Your task to perform on an android device: uninstall "Grab" Image 0: 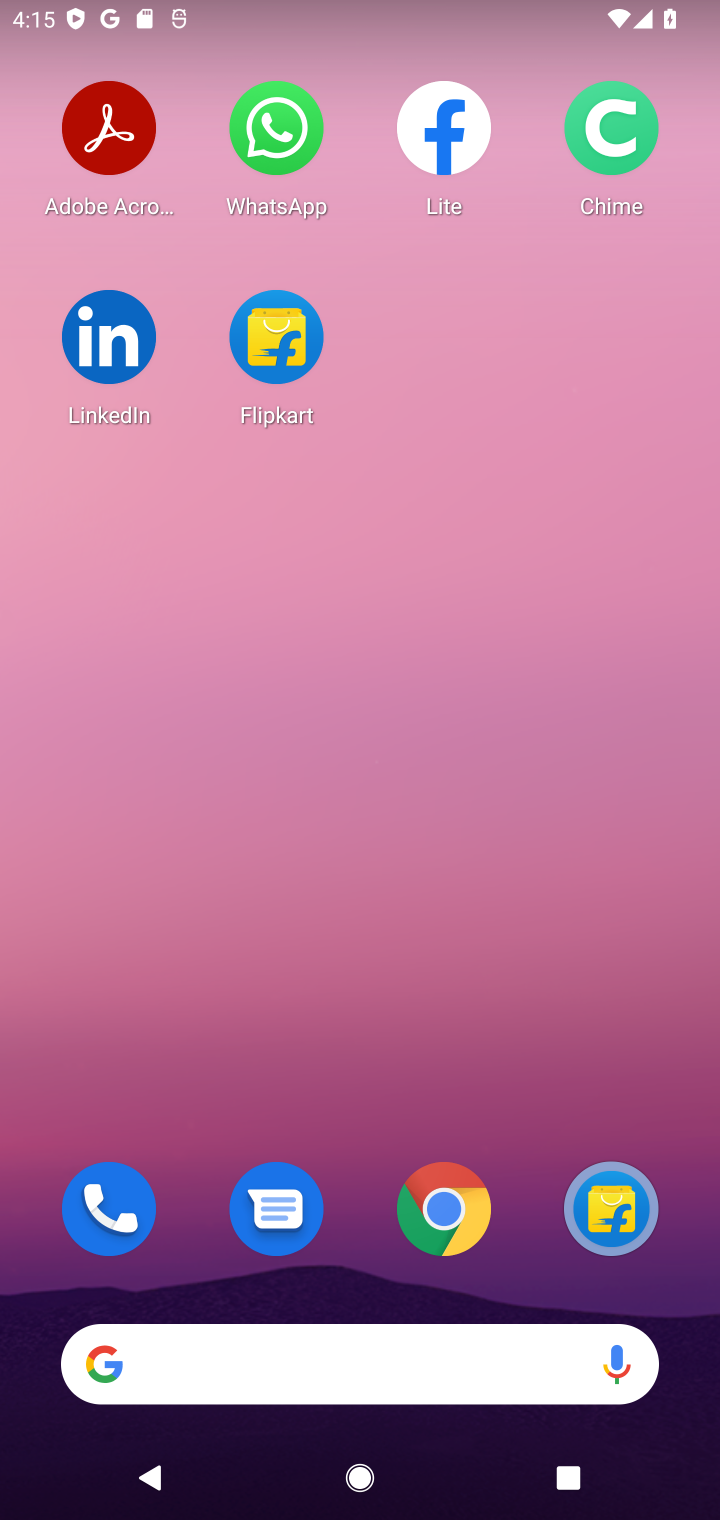
Step 0: drag from (345, 1305) to (308, 180)
Your task to perform on an android device: uninstall "Grab" Image 1: 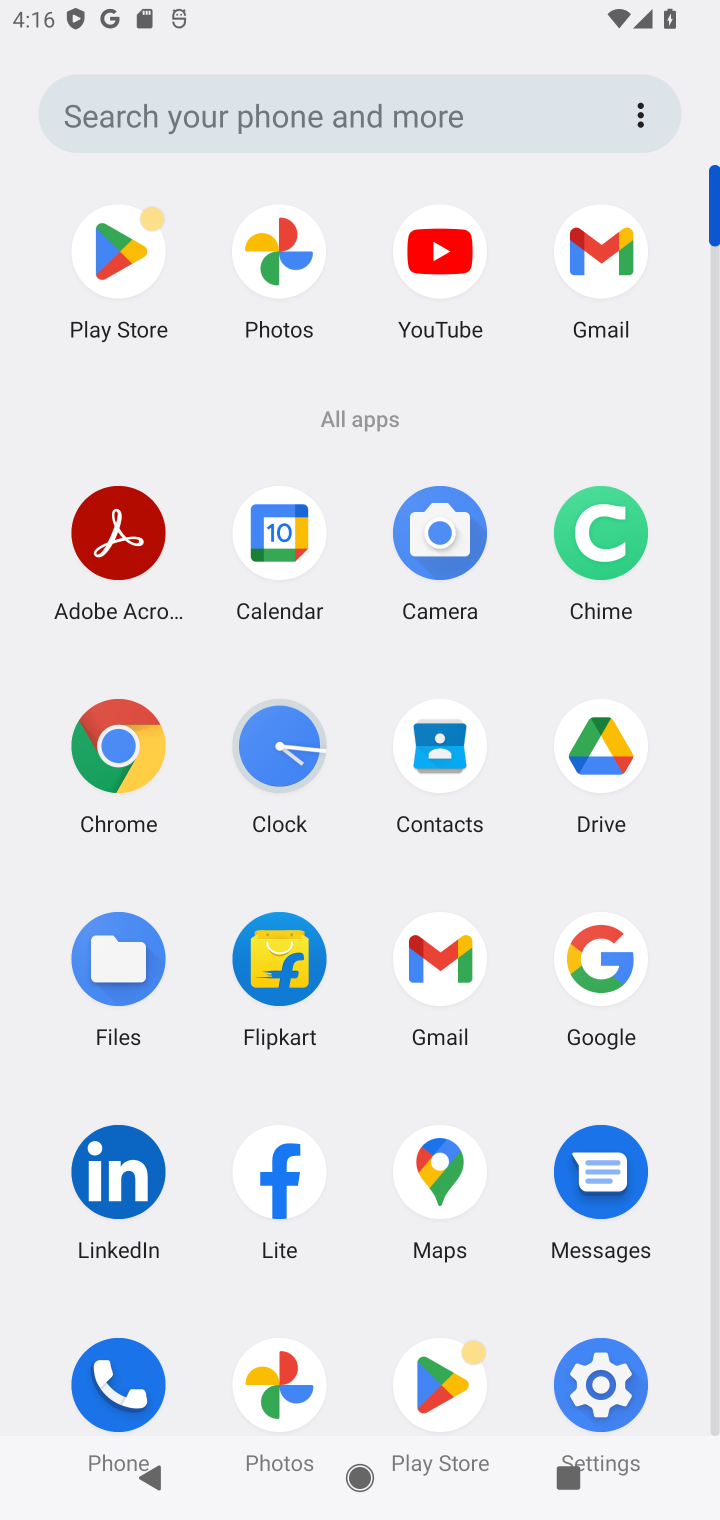
Step 1: click (106, 284)
Your task to perform on an android device: uninstall "Grab" Image 2: 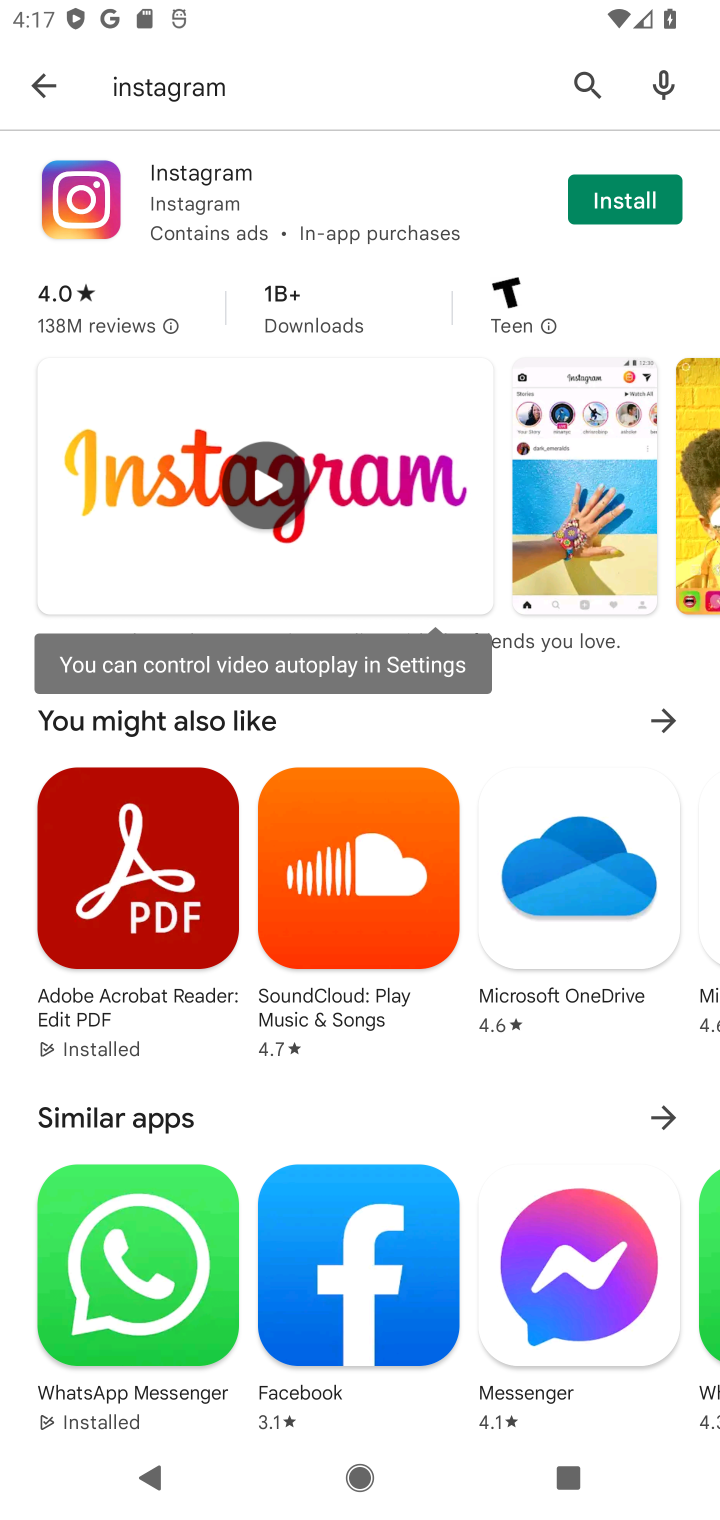
Step 2: click (568, 92)
Your task to perform on an android device: uninstall "Grab" Image 3: 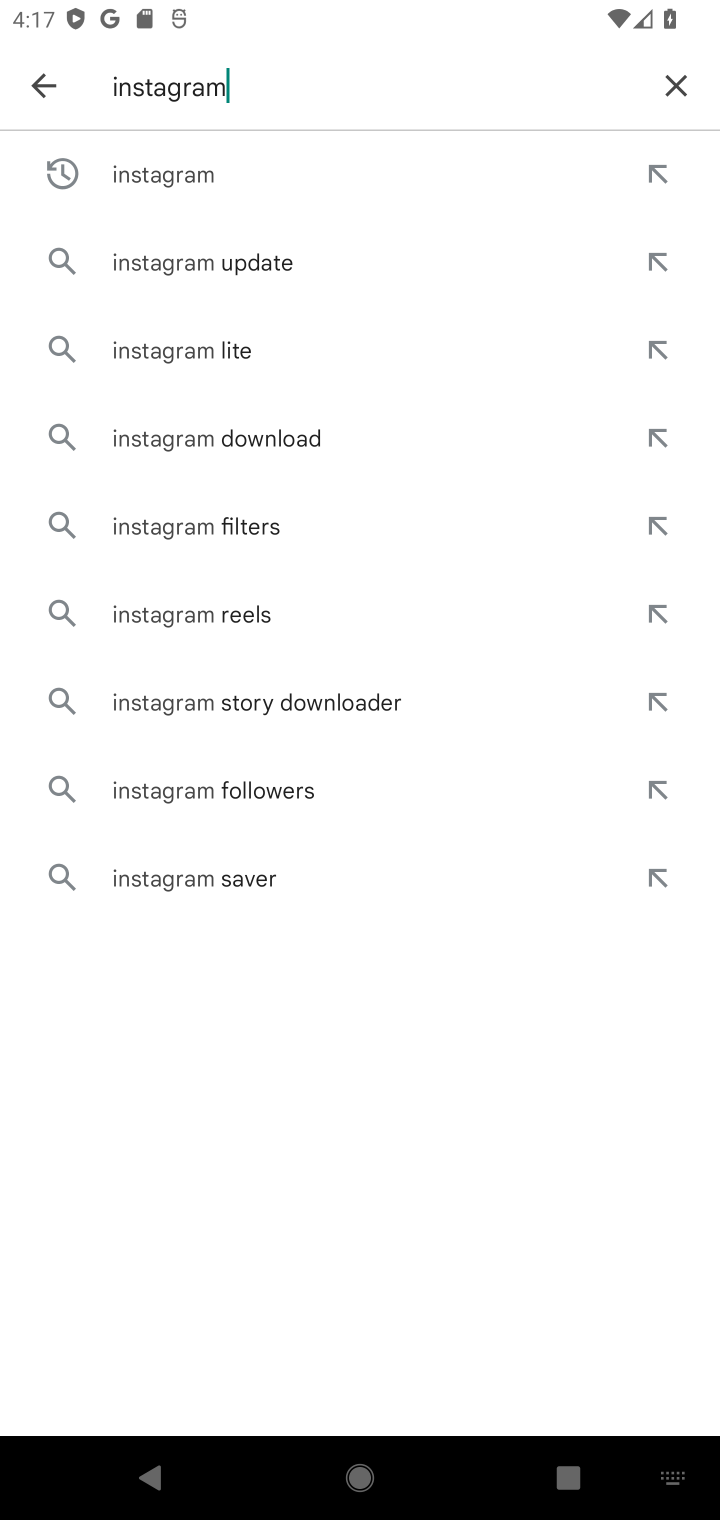
Step 3: click (662, 68)
Your task to perform on an android device: uninstall "Grab" Image 4: 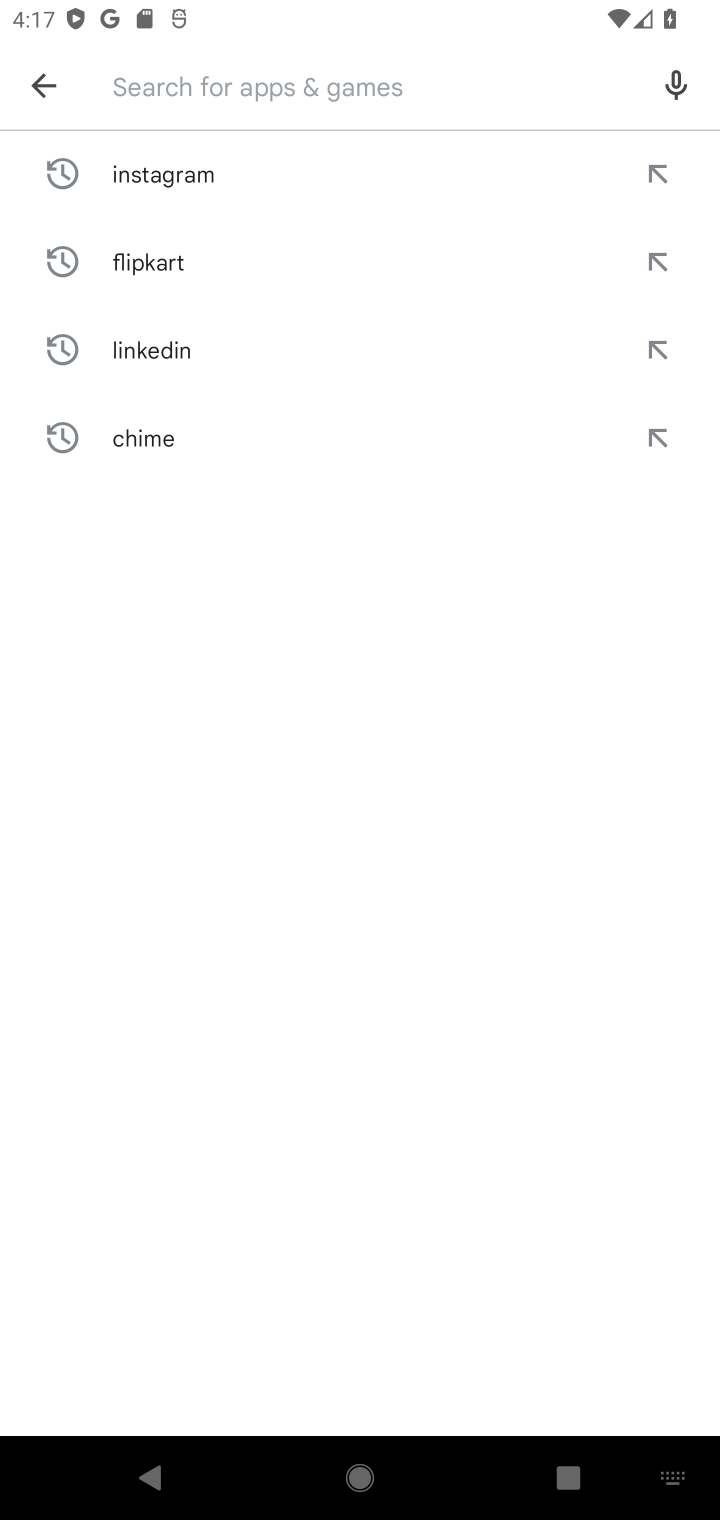
Step 4: type "grab"
Your task to perform on an android device: uninstall "Grab" Image 5: 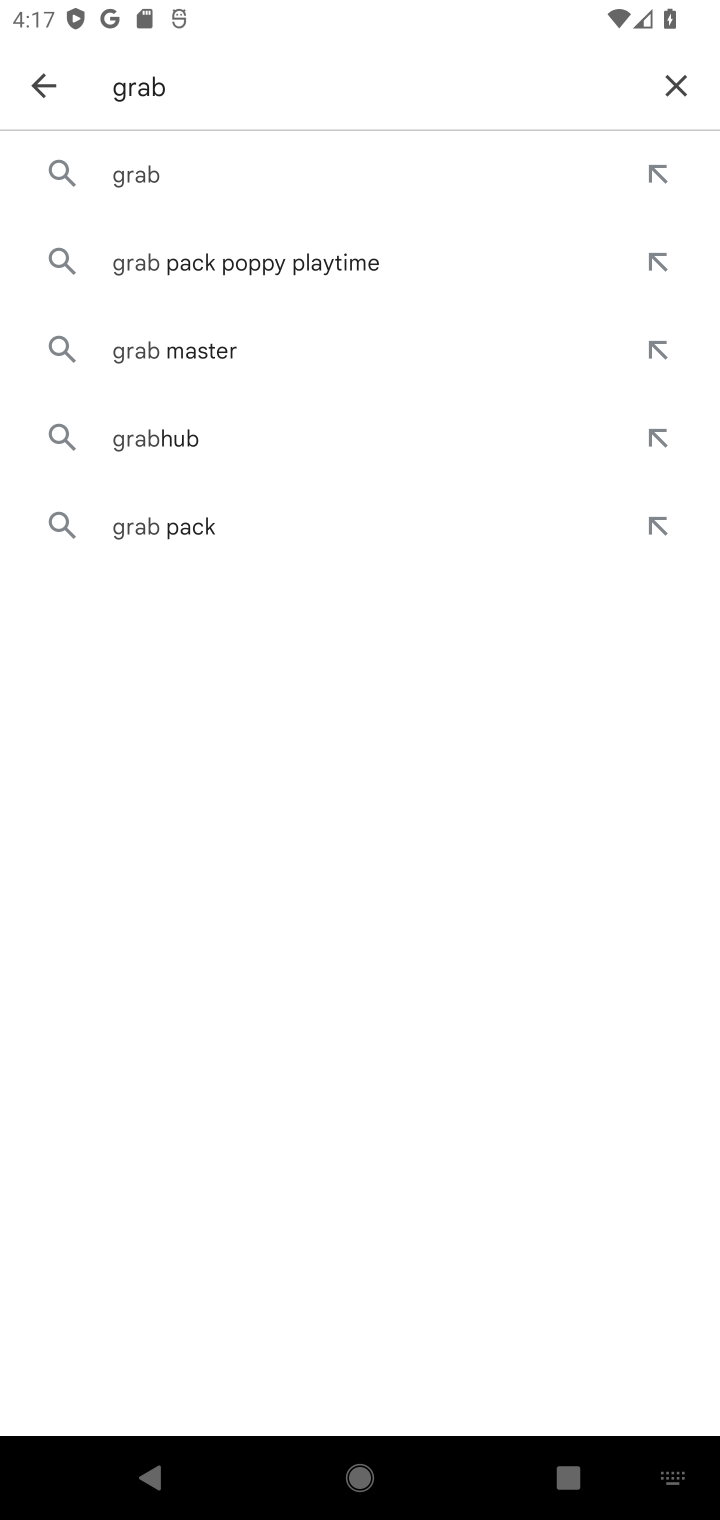
Step 5: click (436, 158)
Your task to perform on an android device: uninstall "Grab" Image 6: 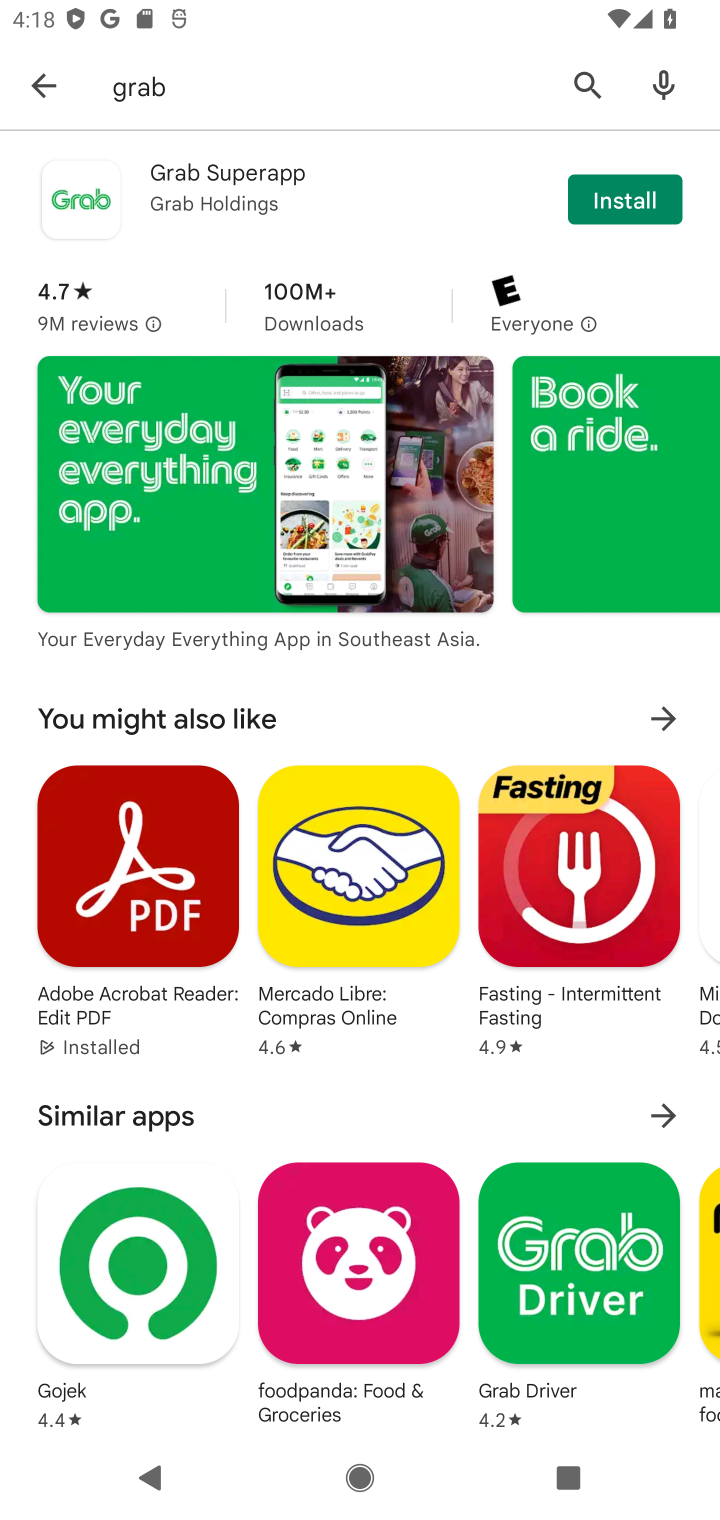
Step 6: click (594, 215)
Your task to perform on an android device: uninstall "Grab" Image 7: 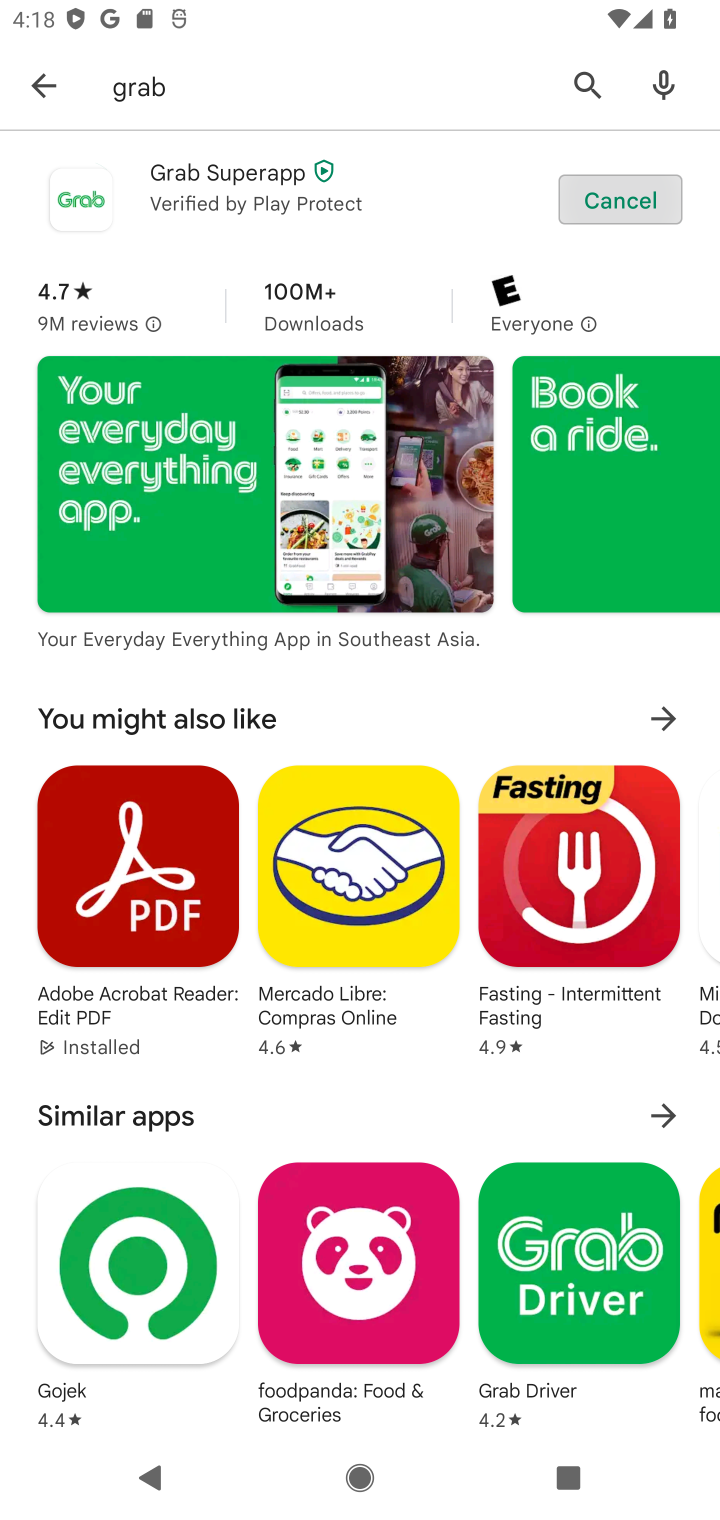
Step 7: task complete